Your task to perform on an android device: Open privacy settings Image 0: 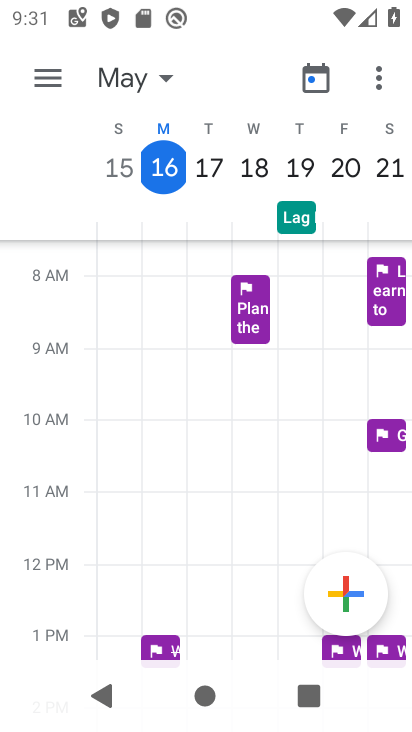
Step 0: press home button
Your task to perform on an android device: Open privacy settings Image 1: 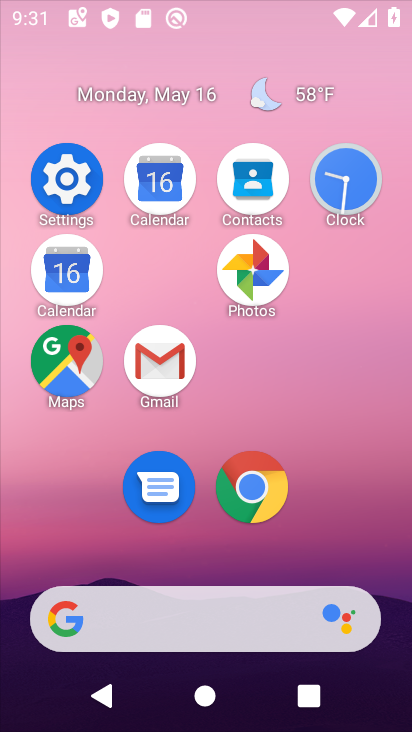
Step 1: click (78, 182)
Your task to perform on an android device: Open privacy settings Image 2: 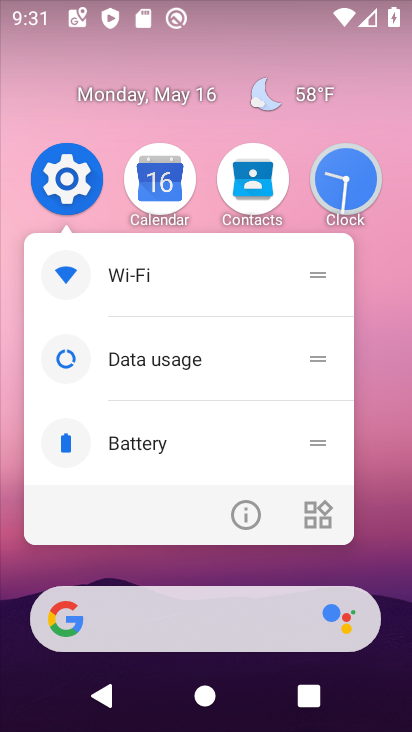
Step 2: click (80, 196)
Your task to perform on an android device: Open privacy settings Image 3: 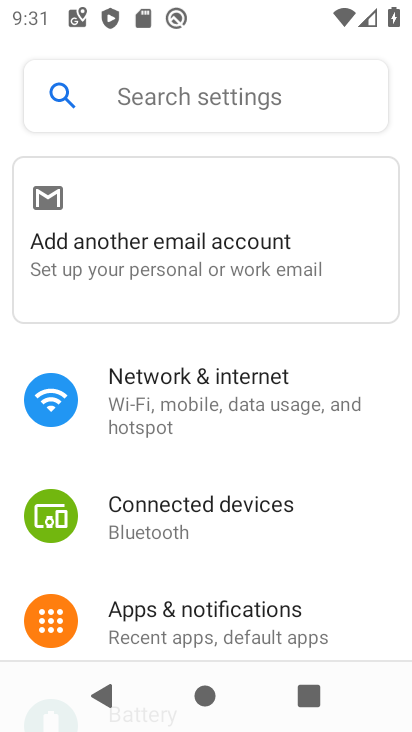
Step 3: drag from (245, 495) to (265, 79)
Your task to perform on an android device: Open privacy settings Image 4: 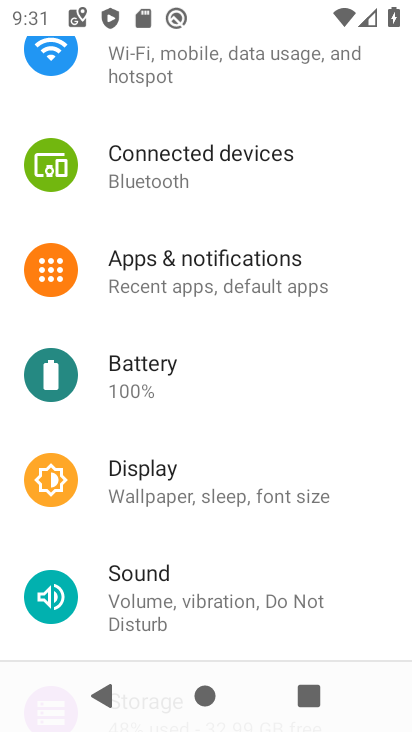
Step 4: drag from (207, 512) to (248, 140)
Your task to perform on an android device: Open privacy settings Image 5: 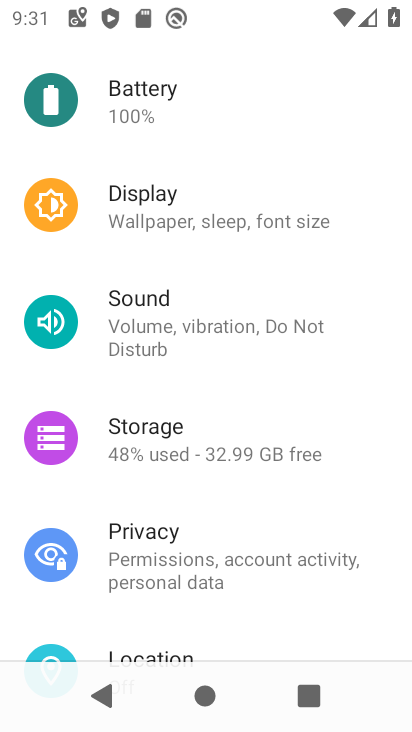
Step 5: click (210, 555)
Your task to perform on an android device: Open privacy settings Image 6: 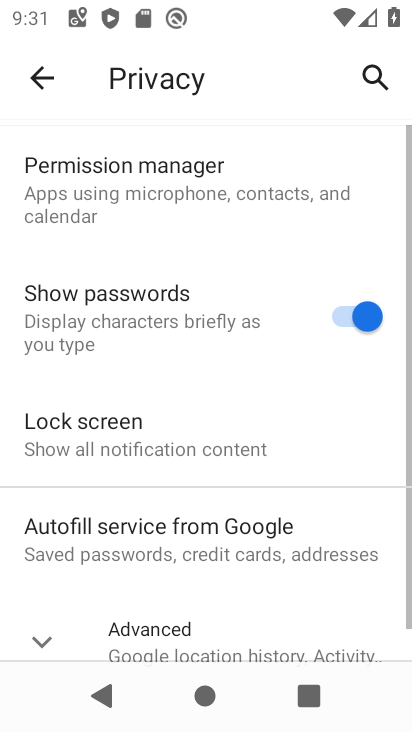
Step 6: task complete